Your task to perform on an android device: Open calendar and show me the third week of next month Image 0: 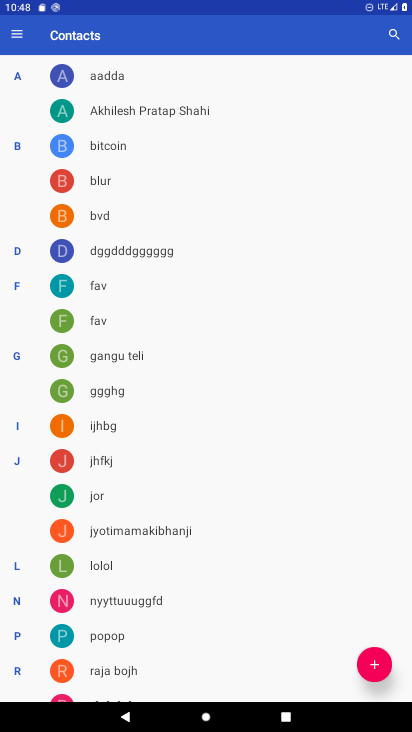
Step 0: press home button
Your task to perform on an android device: Open calendar and show me the third week of next month Image 1: 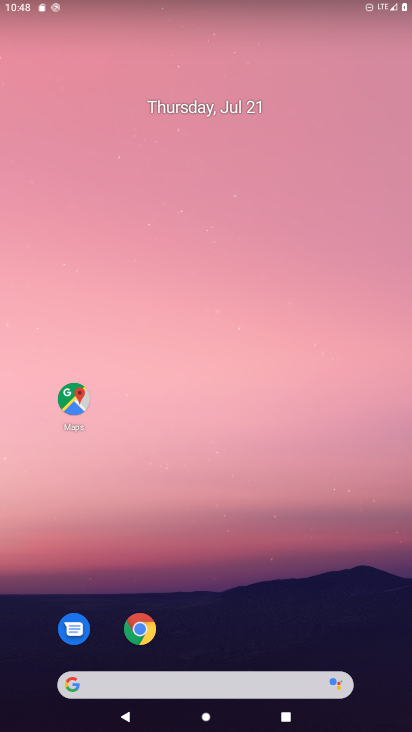
Step 1: drag from (244, 575) to (272, 75)
Your task to perform on an android device: Open calendar and show me the third week of next month Image 2: 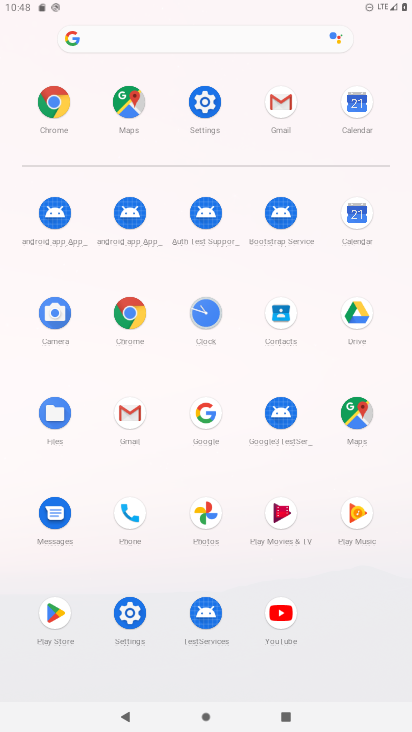
Step 2: click (357, 212)
Your task to perform on an android device: Open calendar and show me the third week of next month Image 3: 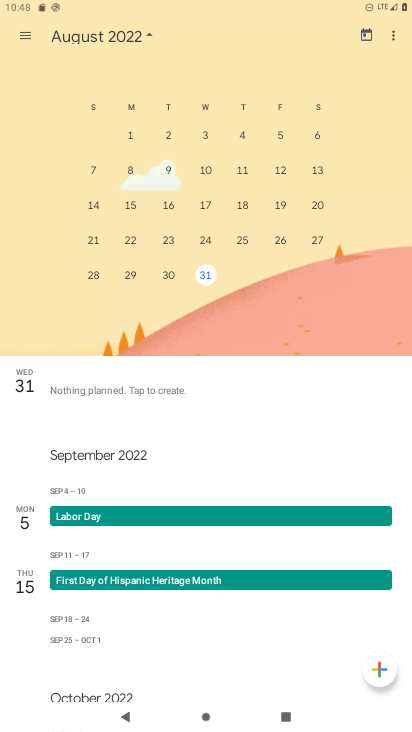
Step 3: click (24, 30)
Your task to perform on an android device: Open calendar and show me the third week of next month Image 4: 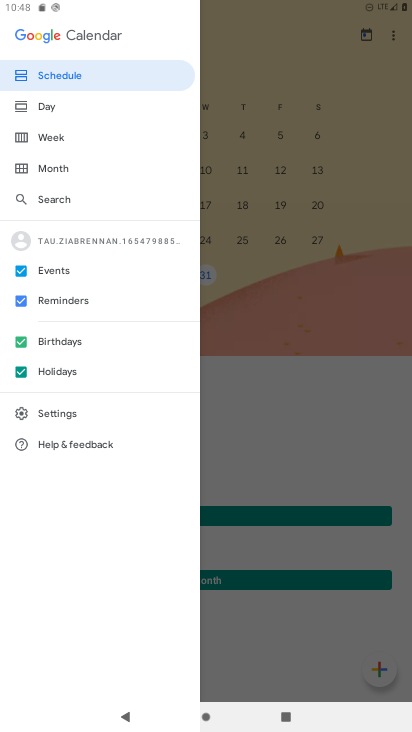
Step 4: click (43, 133)
Your task to perform on an android device: Open calendar and show me the third week of next month Image 5: 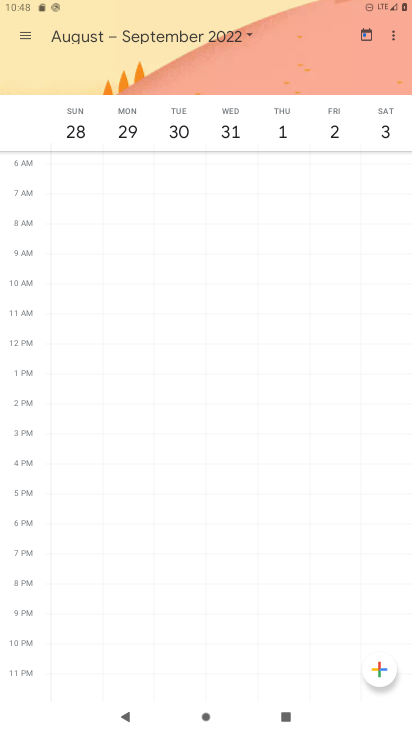
Step 5: task complete